Your task to perform on an android device: turn off sleep mode Image 0: 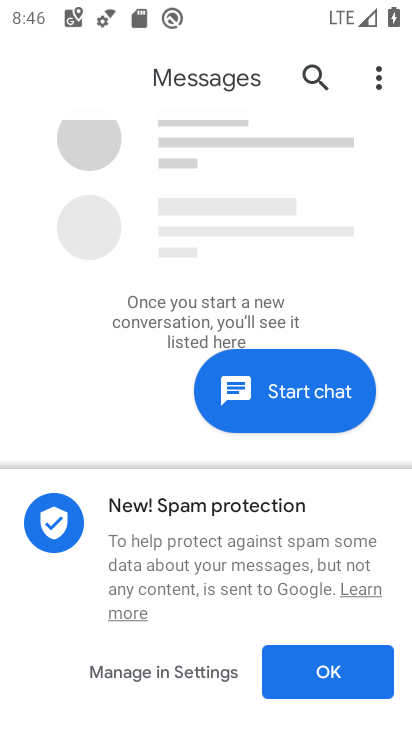
Step 0: press home button
Your task to perform on an android device: turn off sleep mode Image 1: 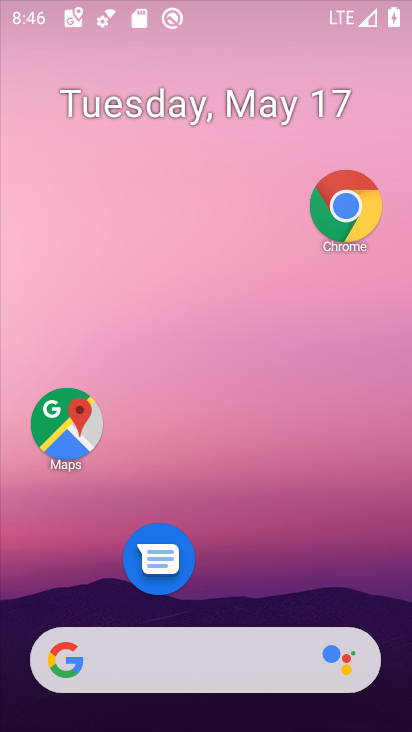
Step 1: drag from (242, 592) to (321, 113)
Your task to perform on an android device: turn off sleep mode Image 2: 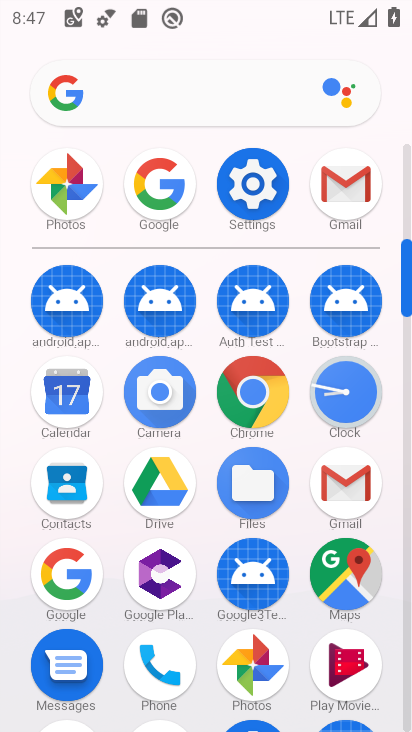
Step 2: click (263, 206)
Your task to perform on an android device: turn off sleep mode Image 3: 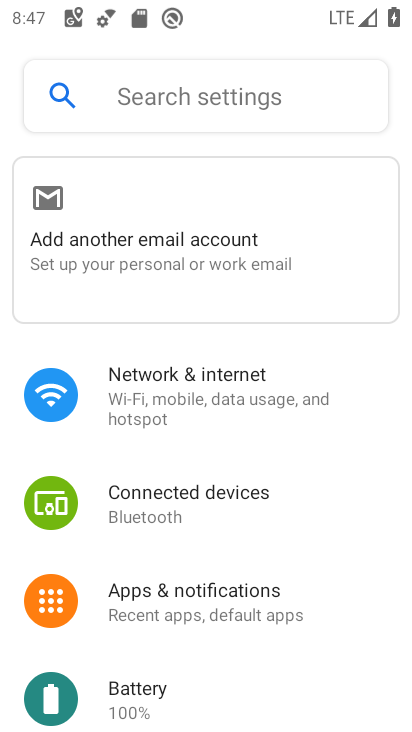
Step 3: drag from (209, 553) to (266, 123)
Your task to perform on an android device: turn off sleep mode Image 4: 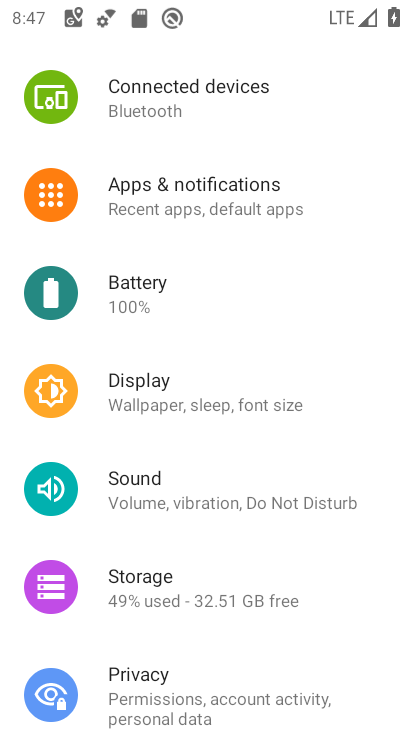
Step 4: drag from (167, 600) to (186, 472)
Your task to perform on an android device: turn off sleep mode Image 5: 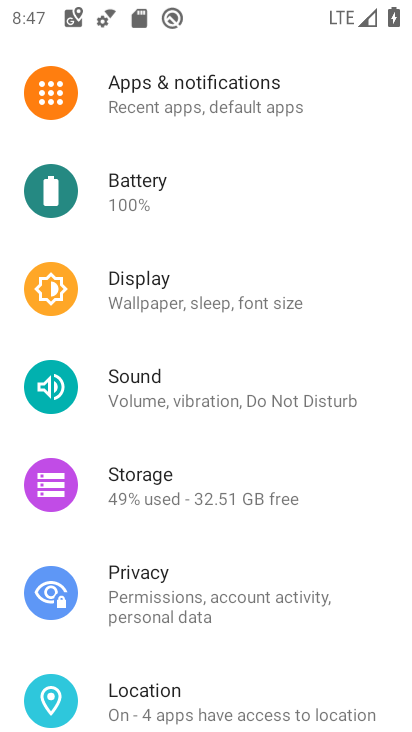
Step 5: click (210, 303)
Your task to perform on an android device: turn off sleep mode Image 6: 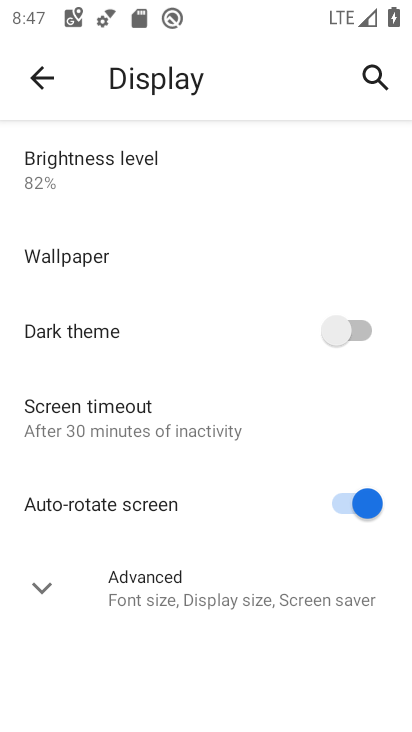
Step 6: click (145, 592)
Your task to perform on an android device: turn off sleep mode Image 7: 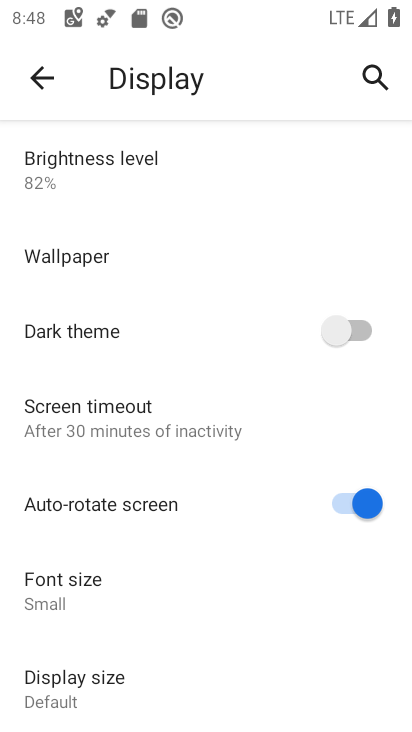
Step 7: task complete